Your task to perform on an android device: Play the last video I watched on Youtube Image 0: 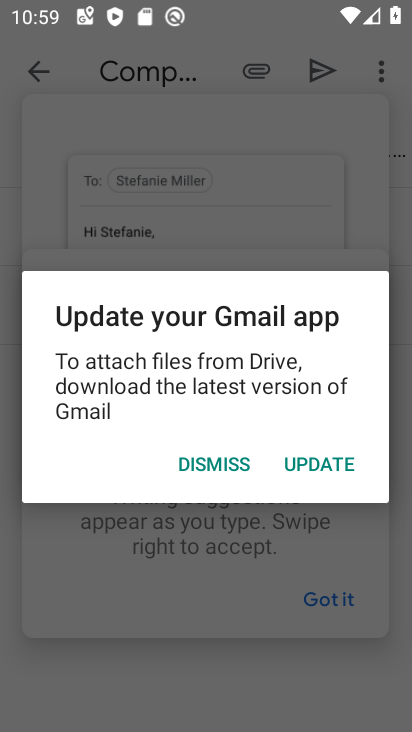
Step 0: press home button
Your task to perform on an android device: Play the last video I watched on Youtube Image 1: 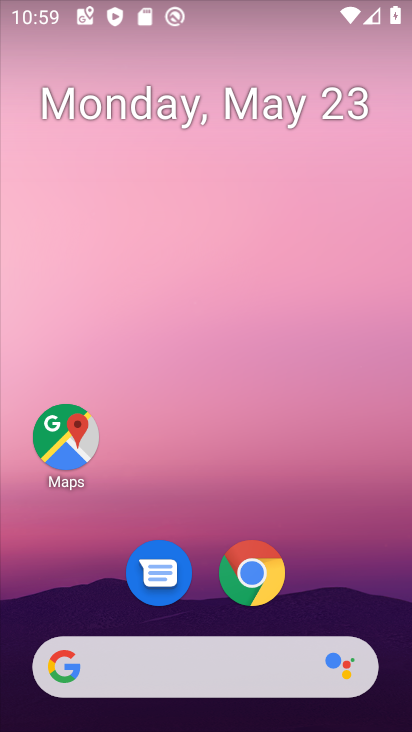
Step 1: drag from (289, 628) to (254, 268)
Your task to perform on an android device: Play the last video I watched on Youtube Image 2: 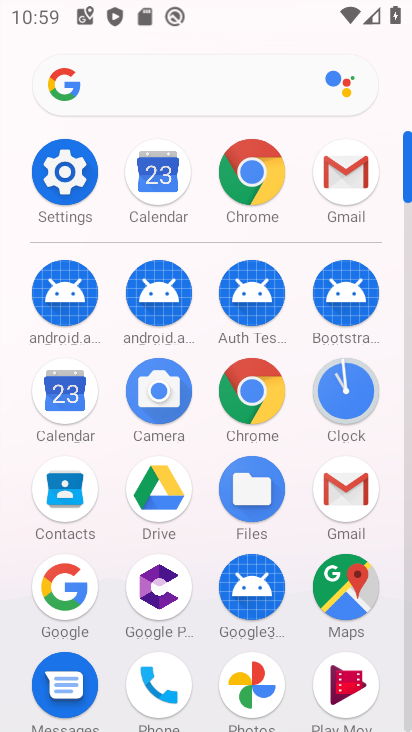
Step 2: drag from (278, 523) to (271, 304)
Your task to perform on an android device: Play the last video I watched on Youtube Image 3: 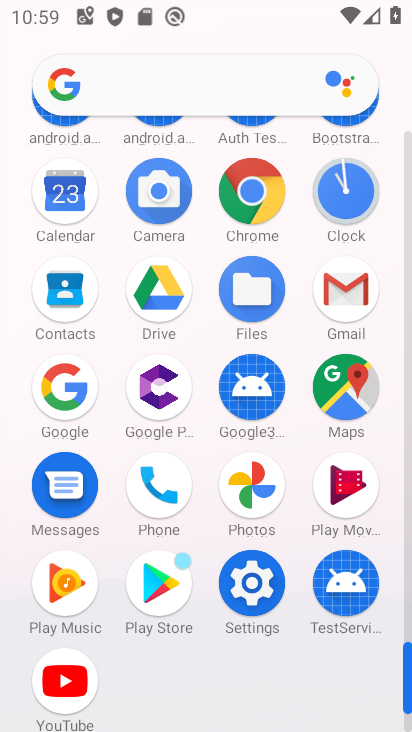
Step 3: click (73, 681)
Your task to perform on an android device: Play the last video I watched on Youtube Image 4: 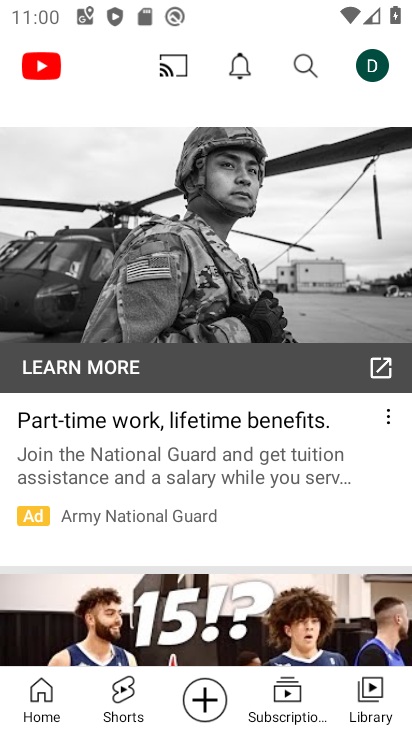
Step 4: click (361, 708)
Your task to perform on an android device: Play the last video I watched on Youtube Image 5: 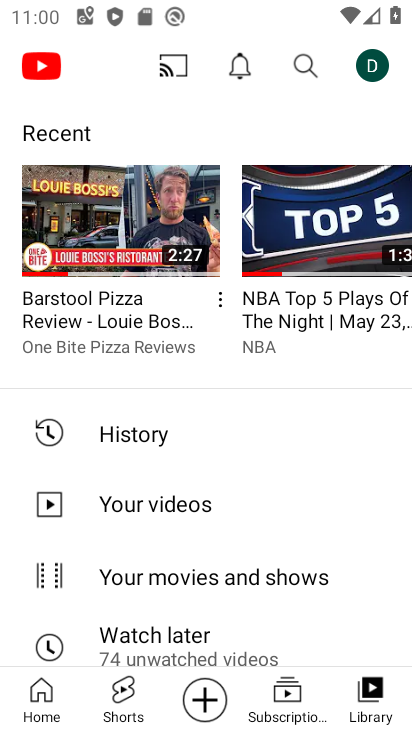
Step 5: click (154, 252)
Your task to perform on an android device: Play the last video I watched on Youtube Image 6: 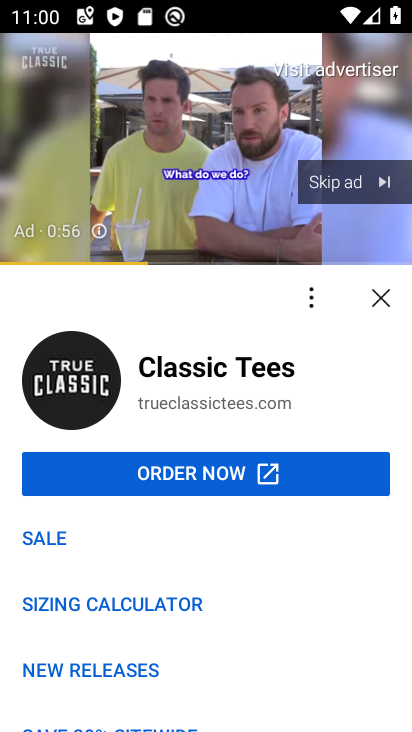
Step 6: click (347, 178)
Your task to perform on an android device: Play the last video I watched on Youtube Image 7: 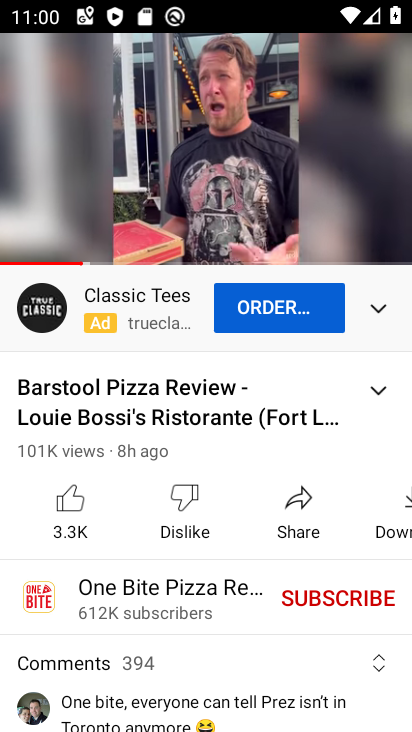
Step 7: task complete